Your task to perform on an android device: open app "Viber Messenger" (install if not already installed), go to login, and select forgot password Image 0: 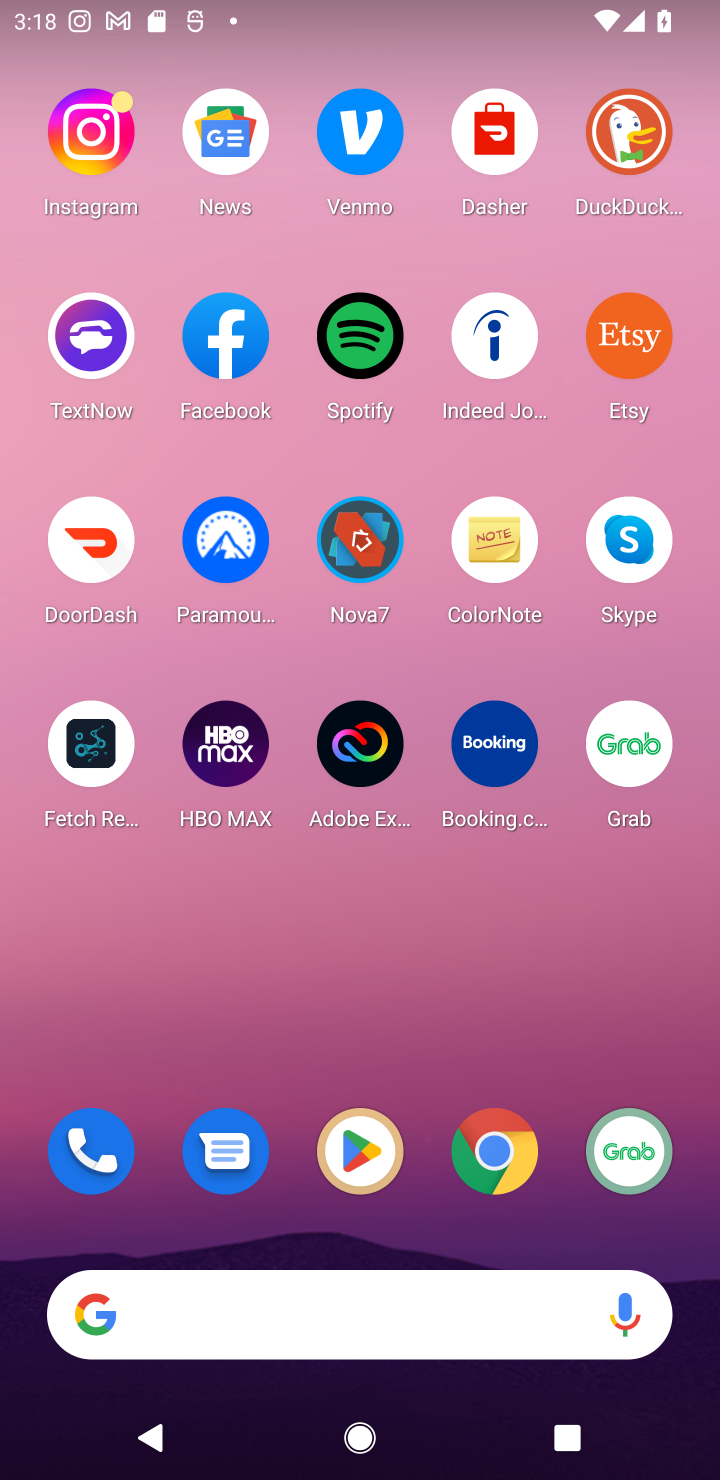
Step 0: press home button
Your task to perform on an android device: open app "Viber Messenger" (install if not already installed), go to login, and select forgot password Image 1: 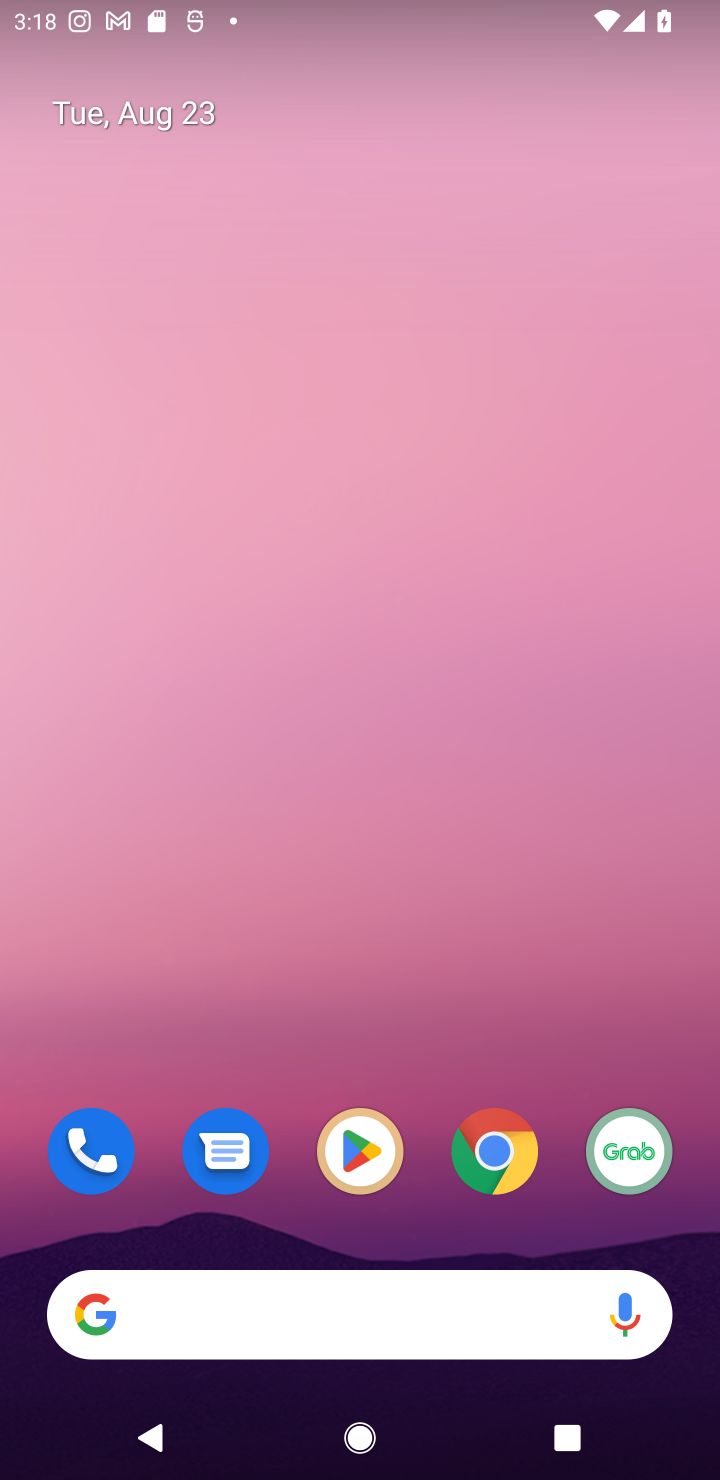
Step 1: click (357, 1153)
Your task to perform on an android device: open app "Viber Messenger" (install if not already installed), go to login, and select forgot password Image 2: 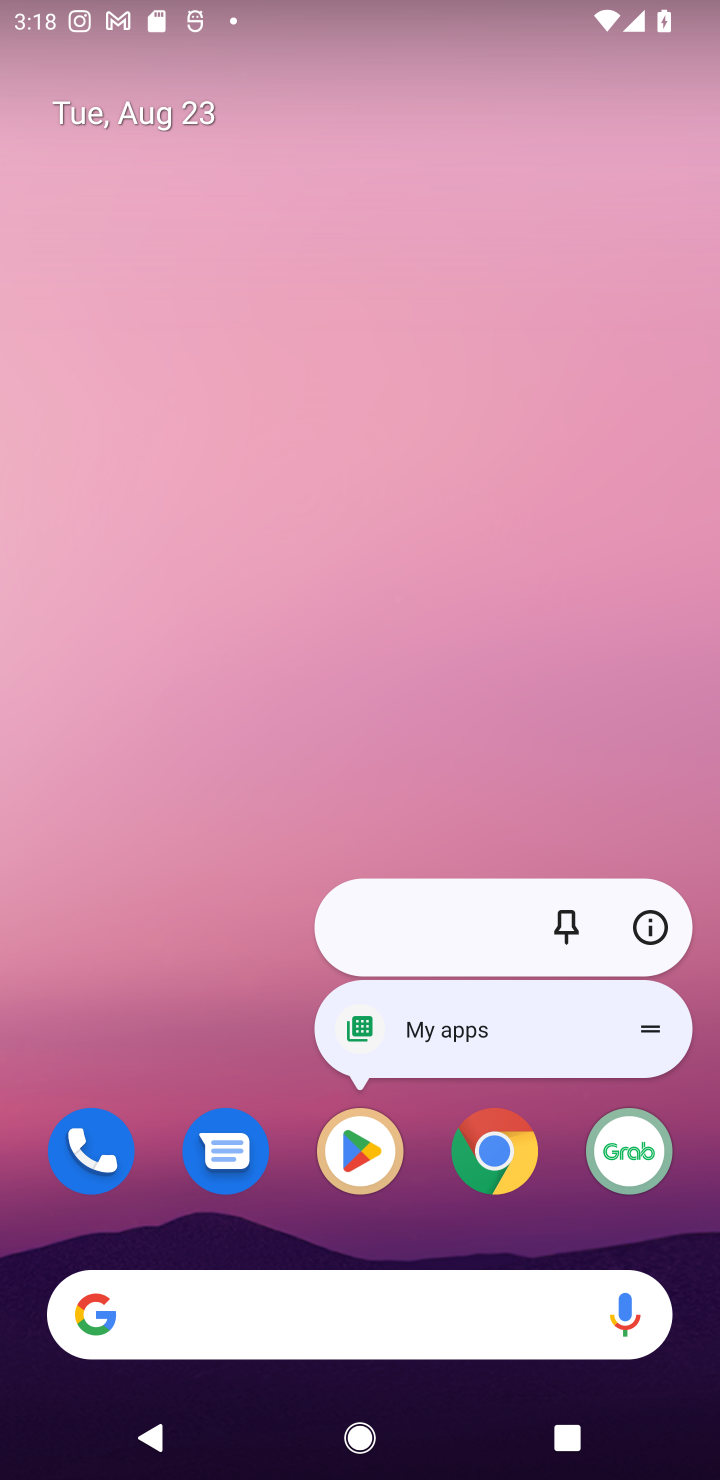
Step 2: click (357, 1158)
Your task to perform on an android device: open app "Viber Messenger" (install if not already installed), go to login, and select forgot password Image 3: 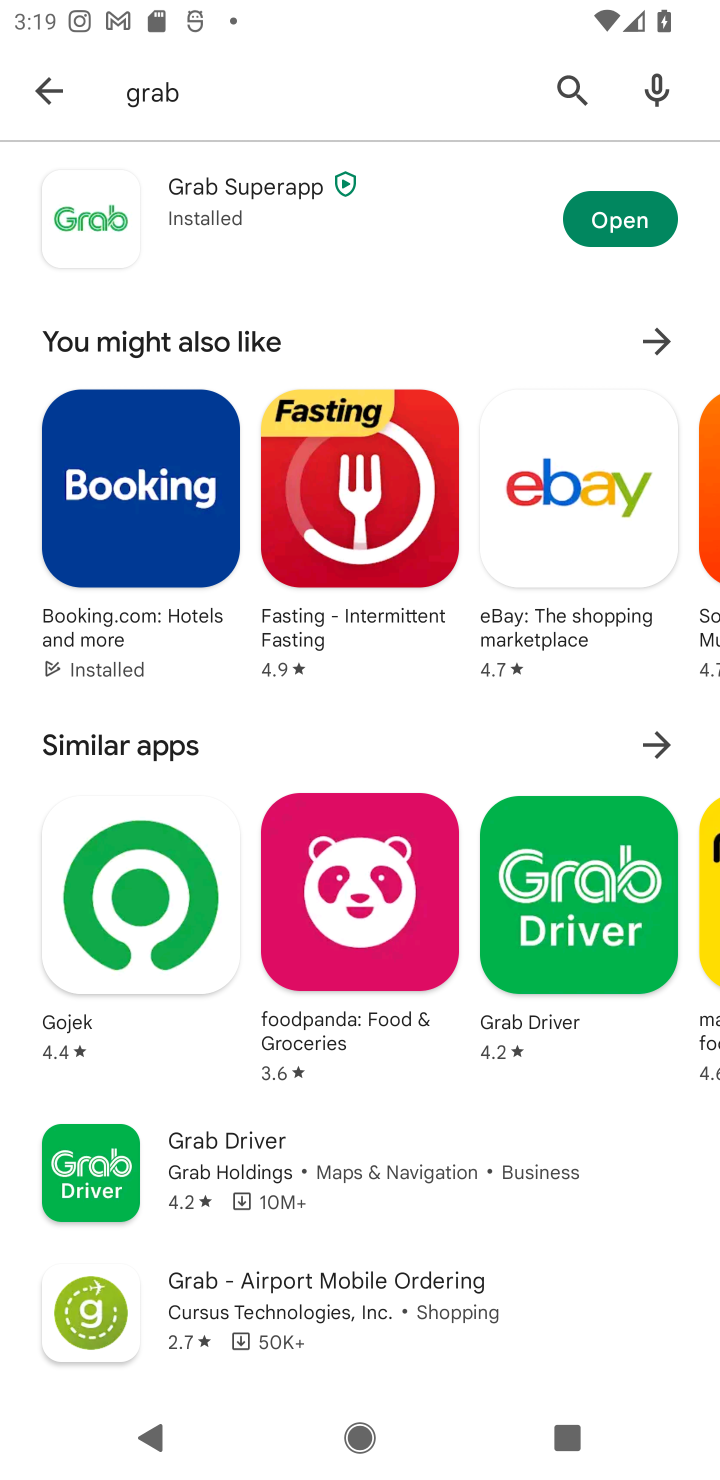
Step 3: click (566, 81)
Your task to perform on an android device: open app "Viber Messenger" (install if not already installed), go to login, and select forgot password Image 4: 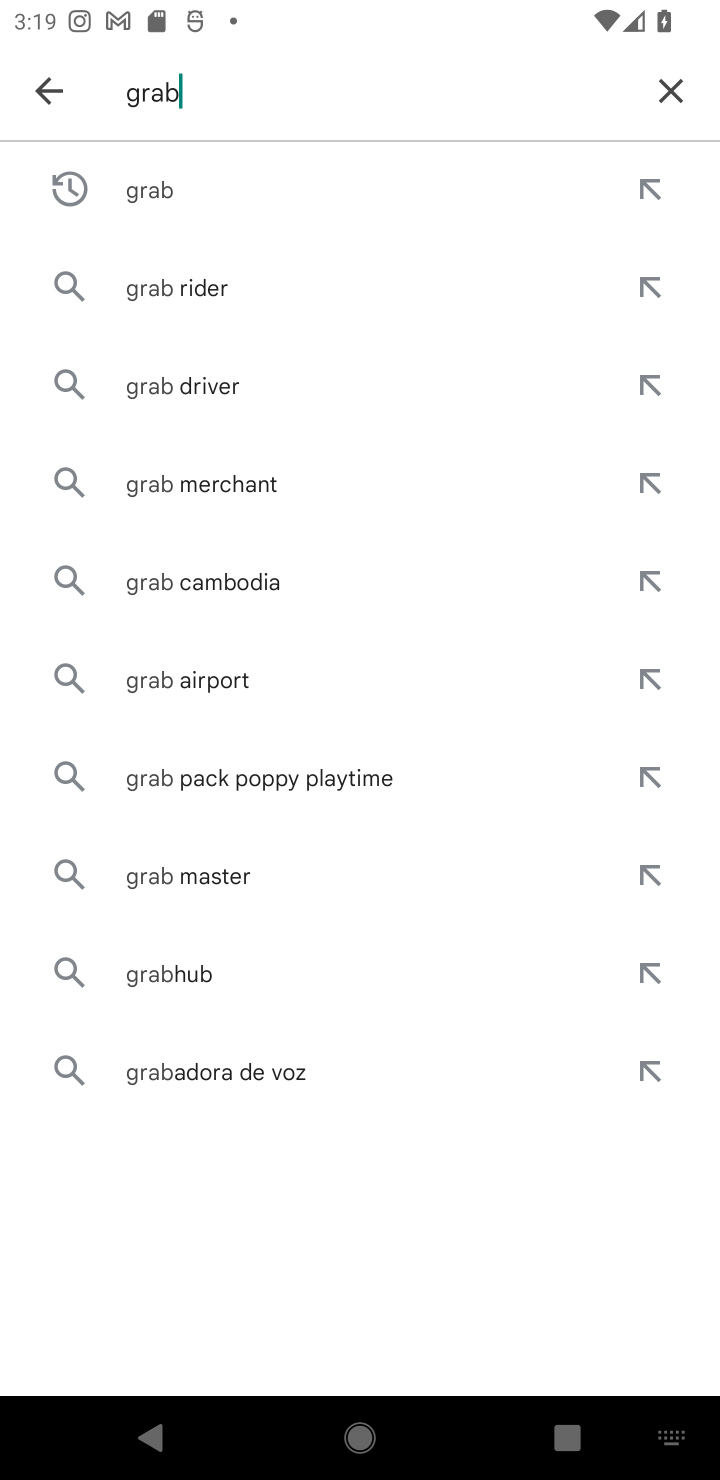
Step 4: click (659, 82)
Your task to perform on an android device: open app "Viber Messenger" (install if not already installed), go to login, and select forgot password Image 5: 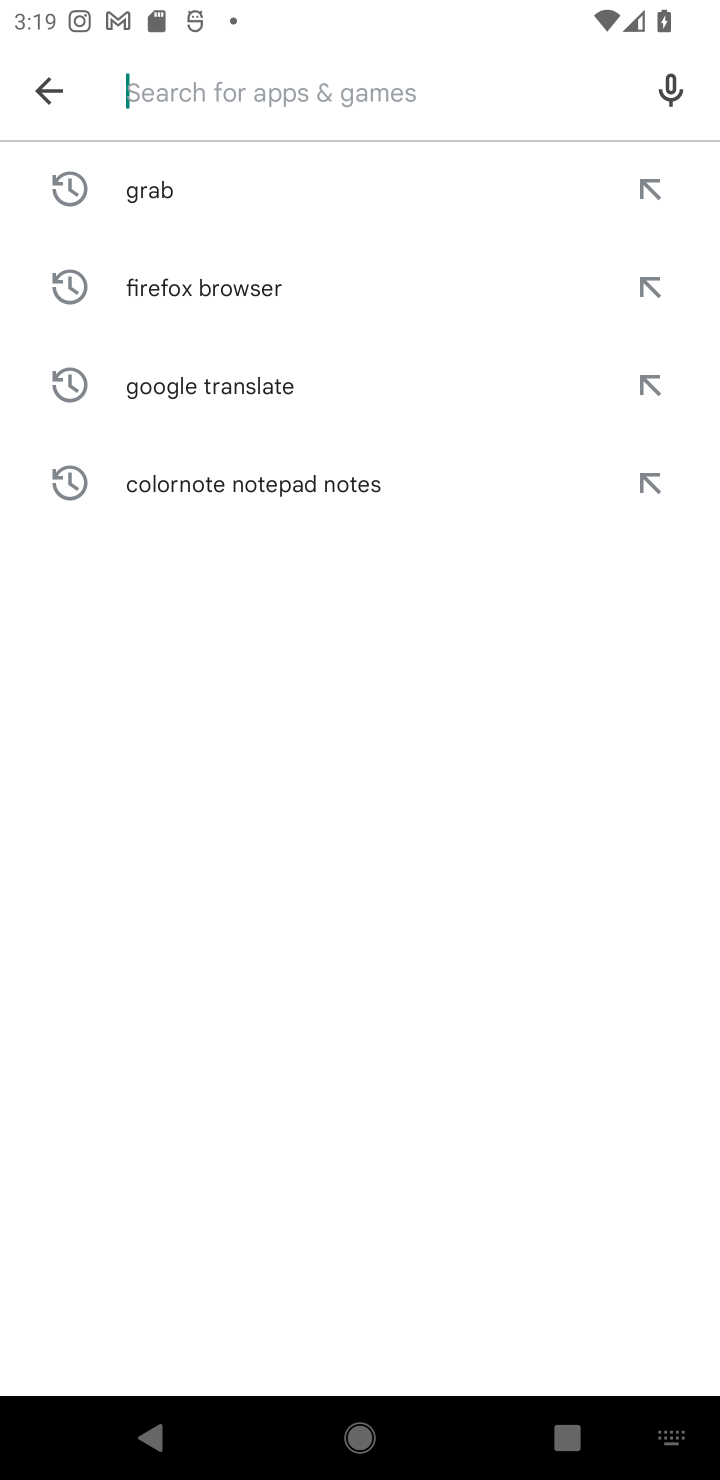
Step 5: type "Viber Messenger"
Your task to perform on an android device: open app "Viber Messenger" (install if not already installed), go to login, and select forgot password Image 6: 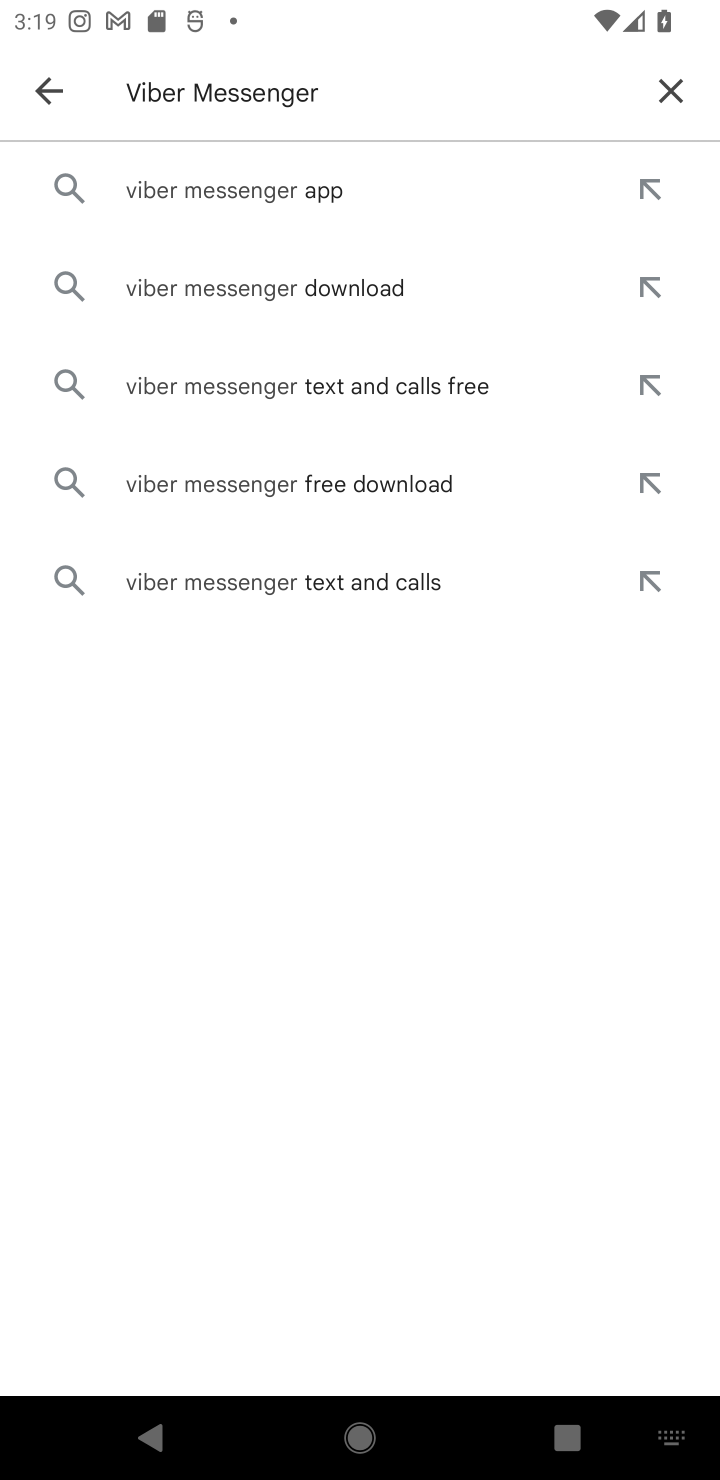
Step 6: click (303, 186)
Your task to perform on an android device: open app "Viber Messenger" (install if not already installed), go to login, and select forgot password Image 7: 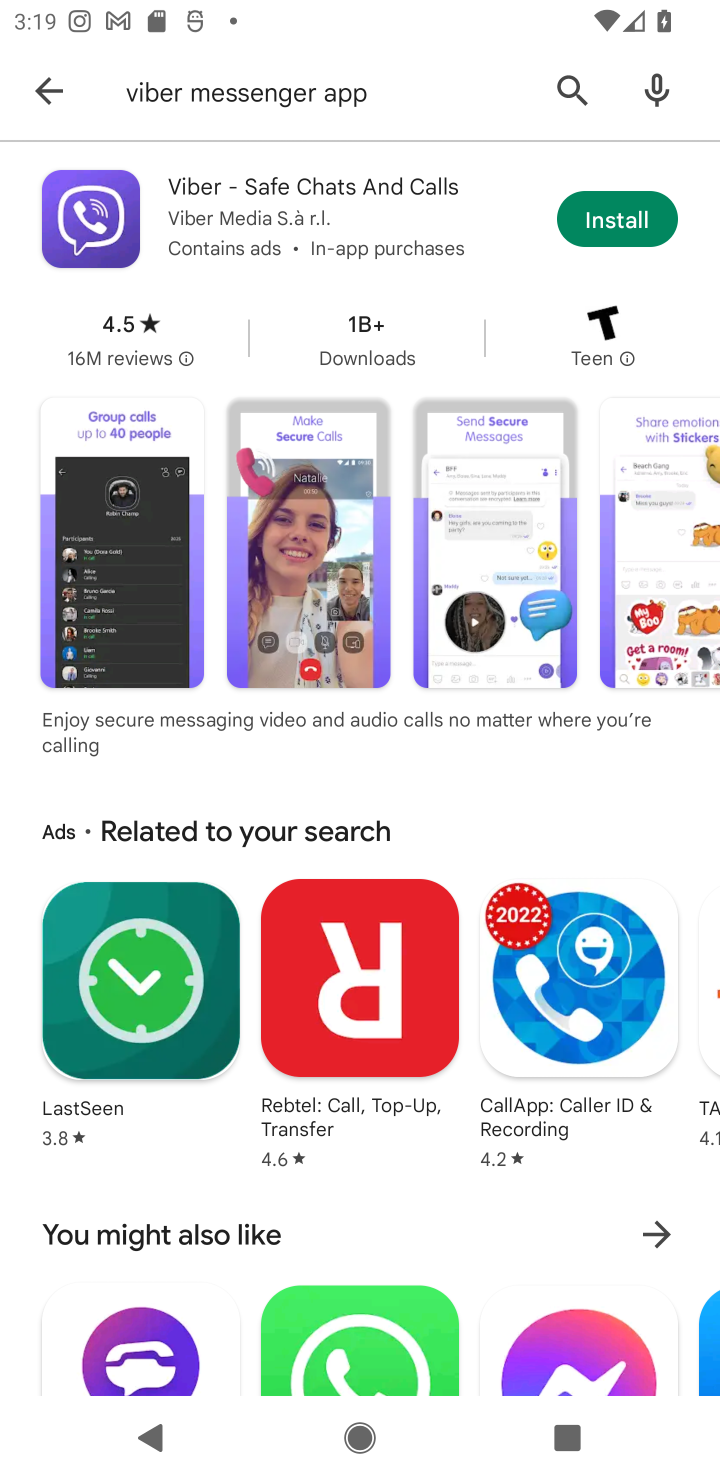
Step 7: click (637, 218)
Your task to perform on an android device: open app "Viber Messenger" (install if not already installed), go to login, and select forgot password Image 8: 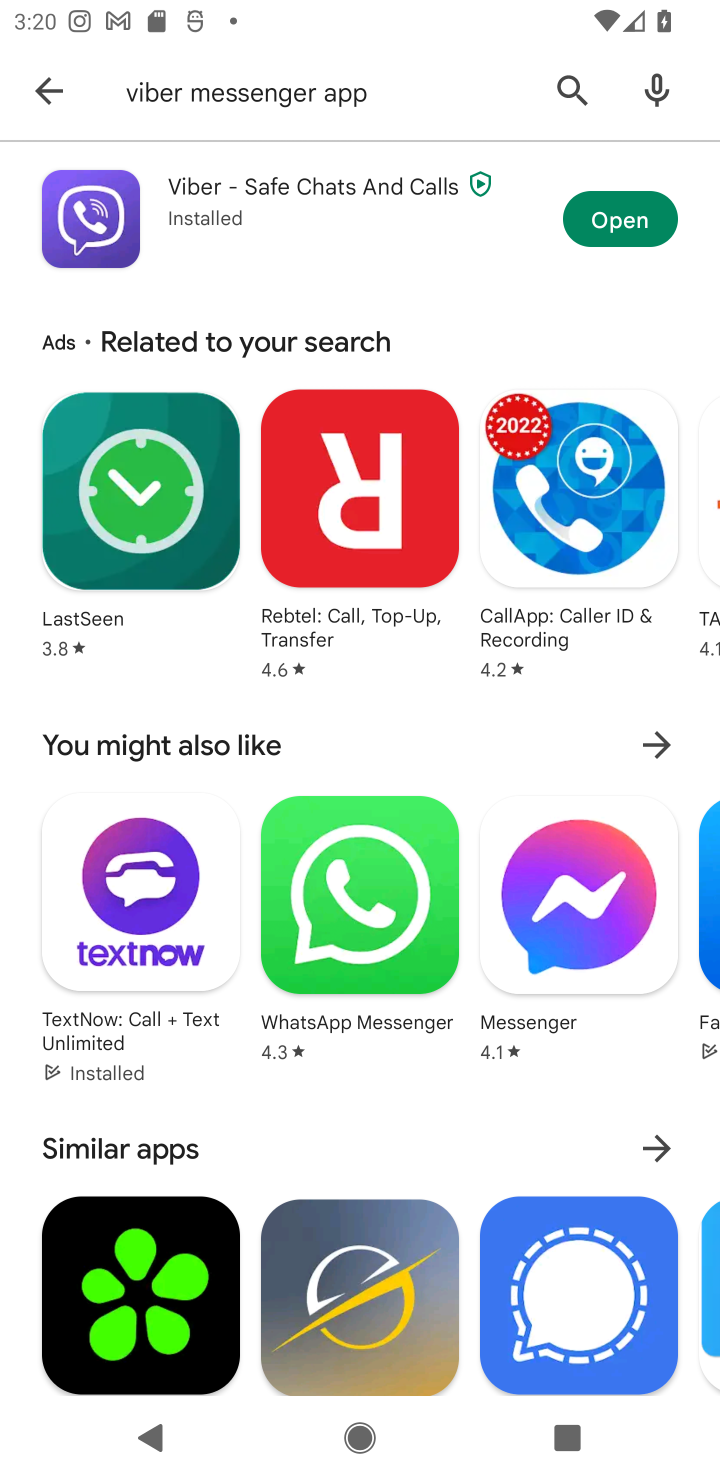
Step 8: click (637, 222)
Your task to perform on an android device: open app "Viber Messenger" (install if not already installed), go to login, and select forgot password Image 9: 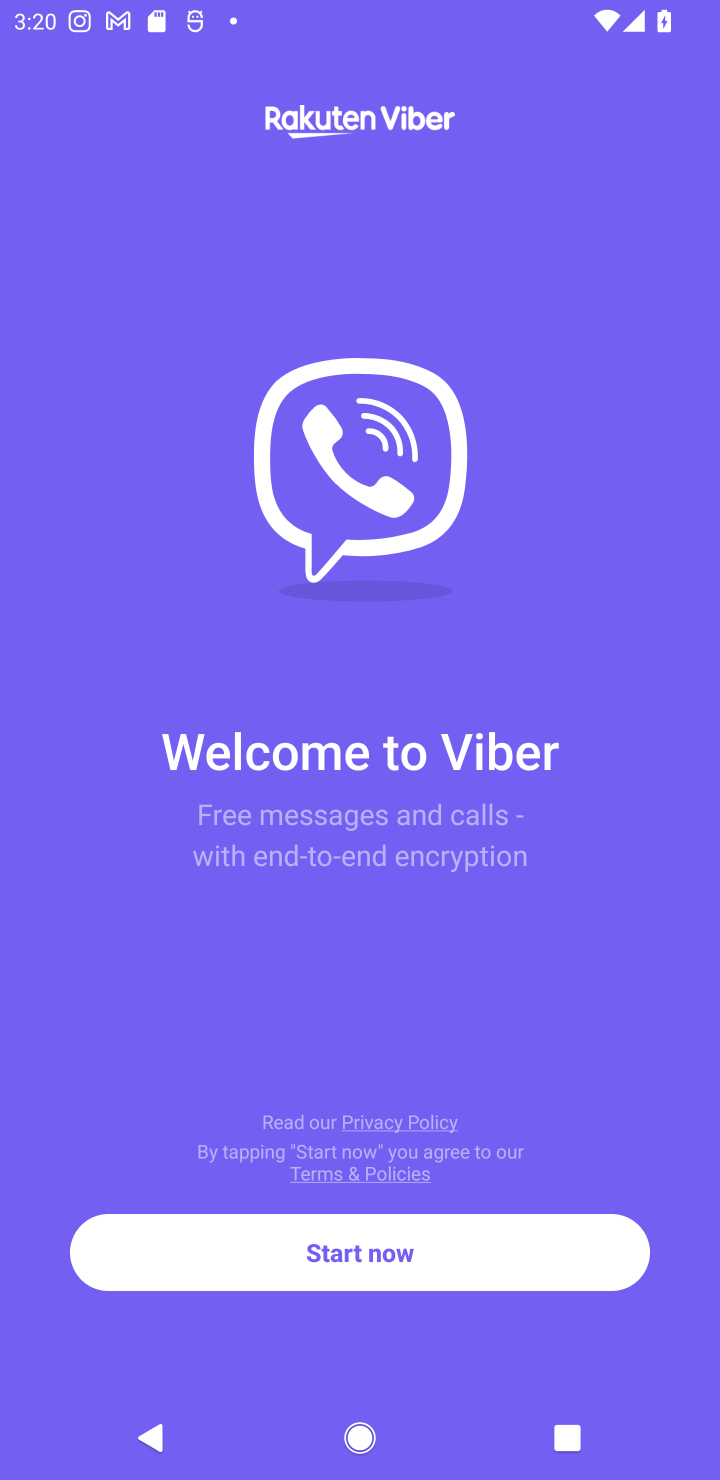
Step 9: click (436, 1268)
Your task to perform on an android device: open app "Viber Messenger" (install if not already installed), go to login, and select forgot password Image 10: 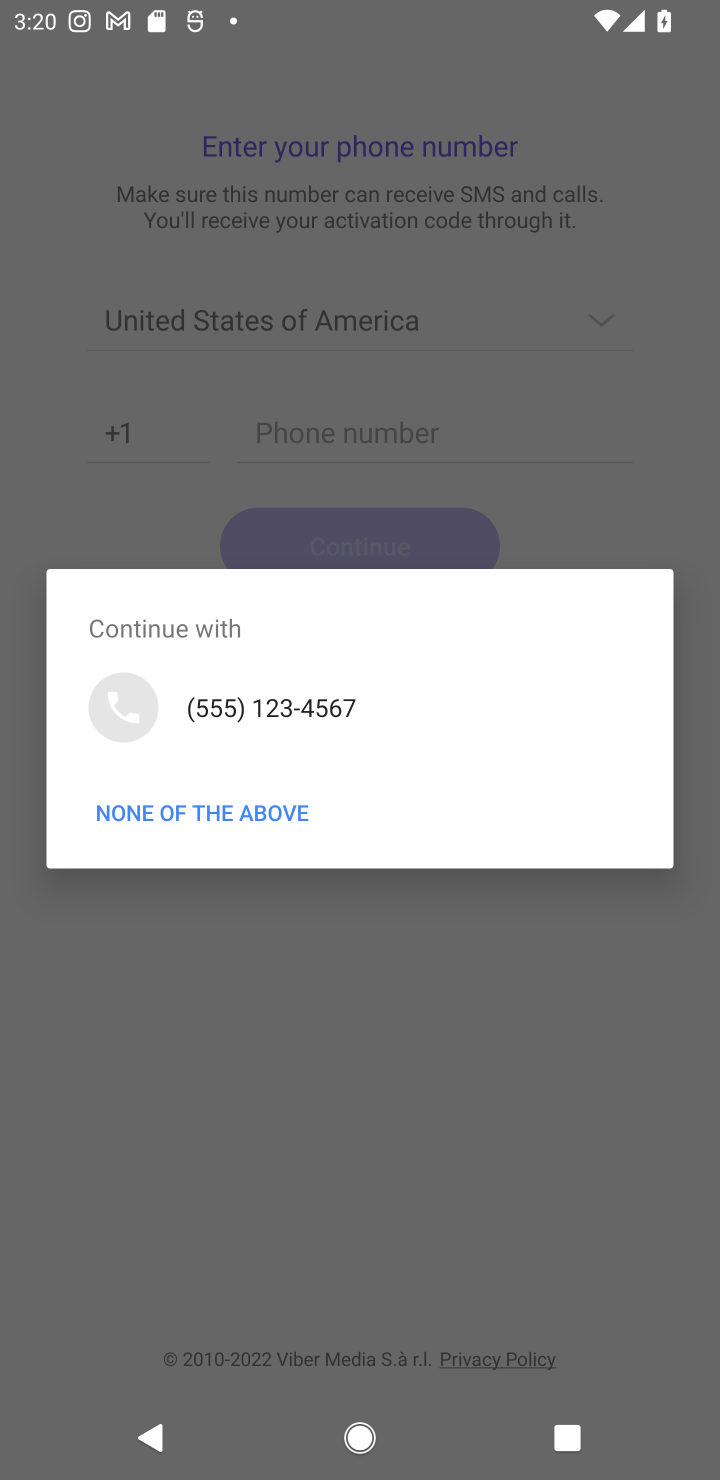
Step 10: click (280, 828)
Your task to perform on an android device: open app "Viber Messenger" (install if not already installed), go to login, and select forgot password Image 11: 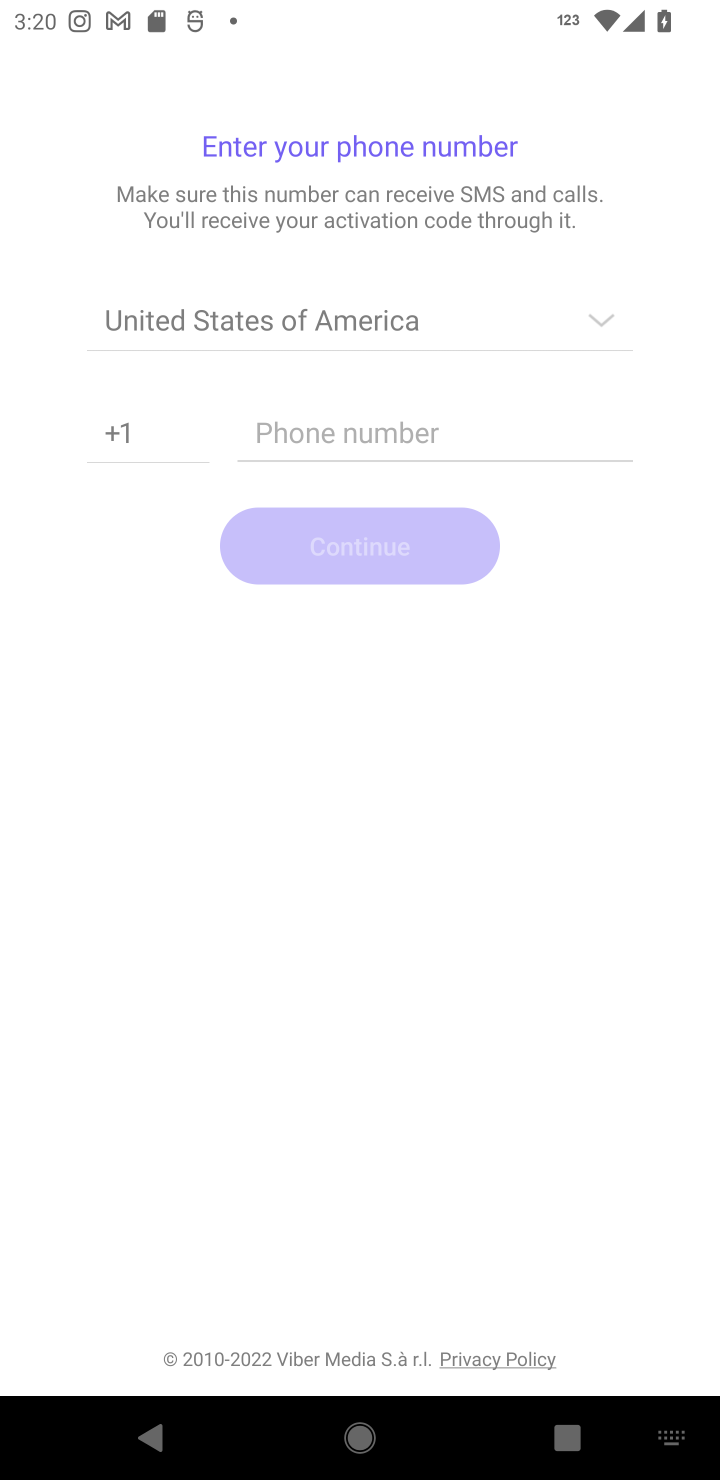
Step 11: task complete